Your task to perform on an android device: What is the recent news? Image 0: 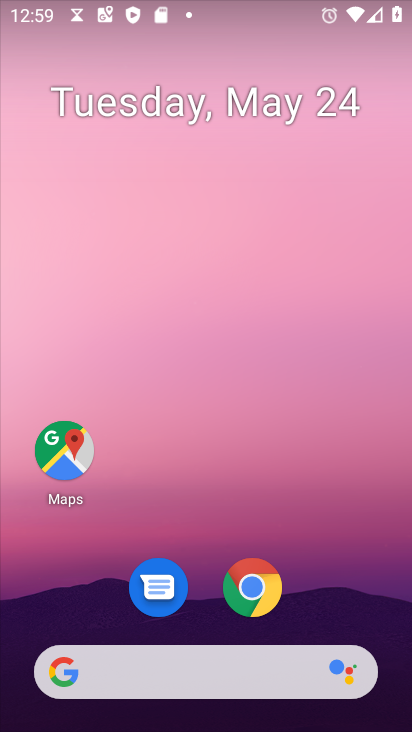
Step 0: drag from (15, 352) to (404, 270)
Your task to perform on an android device: What is the recent news? Image 1: 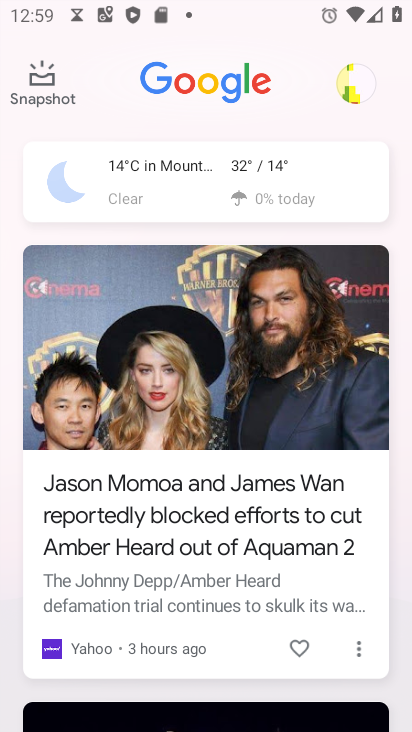
Step 1: task complete